Your task to perform on an android device: When is my next meeting? Image 0: 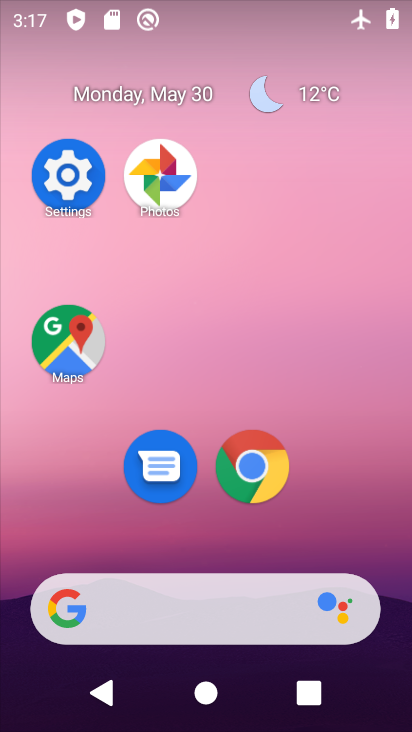
Step 0: drag from (339, 503) to (310, 65)
Your task to perform on an android device: When is my next meeting? Image 1: 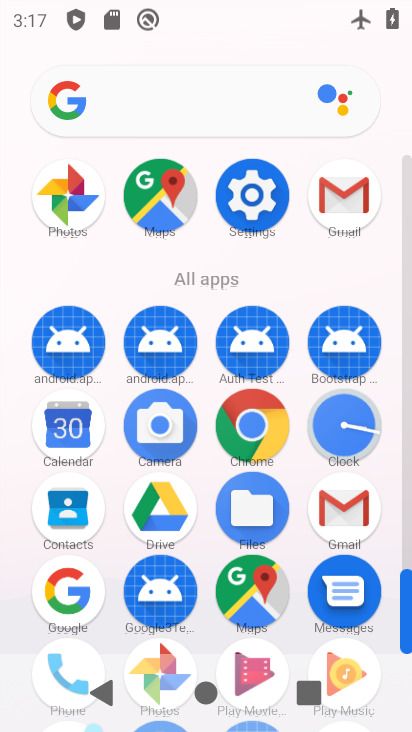
Step 1: click (71, 434)
Your task to perform on an android device: When is my next meeting? Image 2: 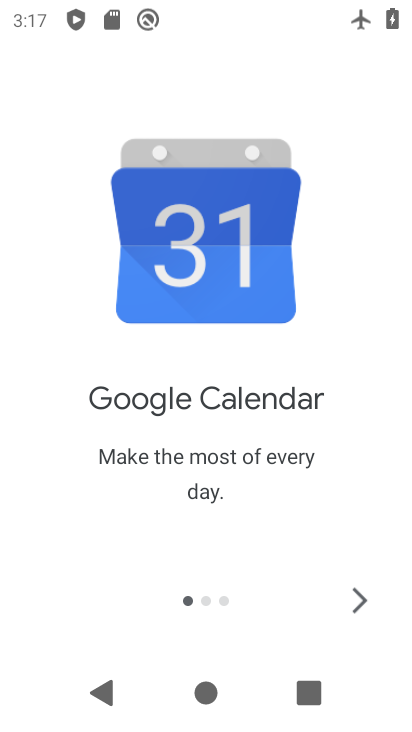
Step 2: click (351, 592)
Your task to perform on an android device: When is my next meeting? Image 3: 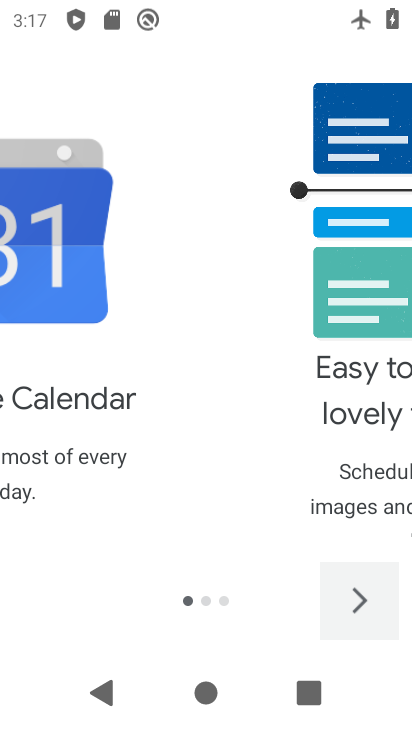
Step 3: click (351, 592)
Your task to perform on an android device: When is my next meeting? Image 4: 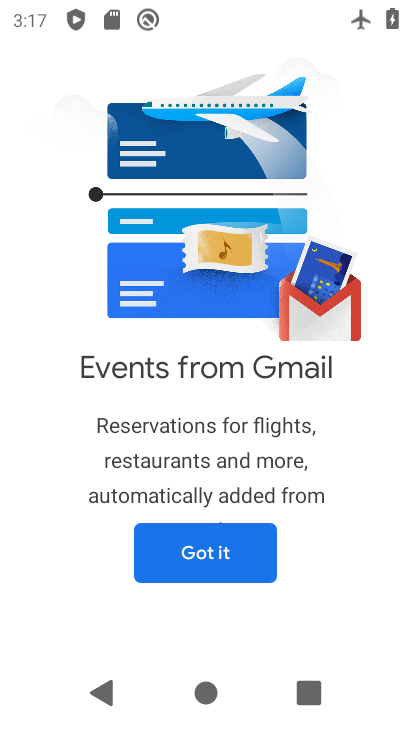
Step 4: click (230, 572)
Your task to perform on an android device: When is my next meeting? Image 5: 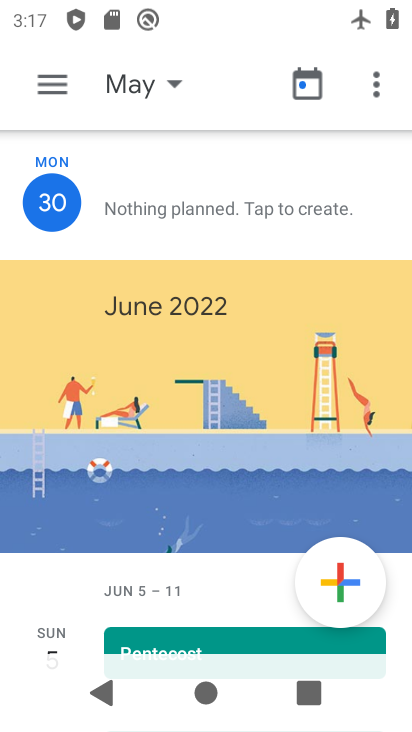
Step 5: click (43, 106)
Your task to perform on an android device: When is my next meeting? Image 6: 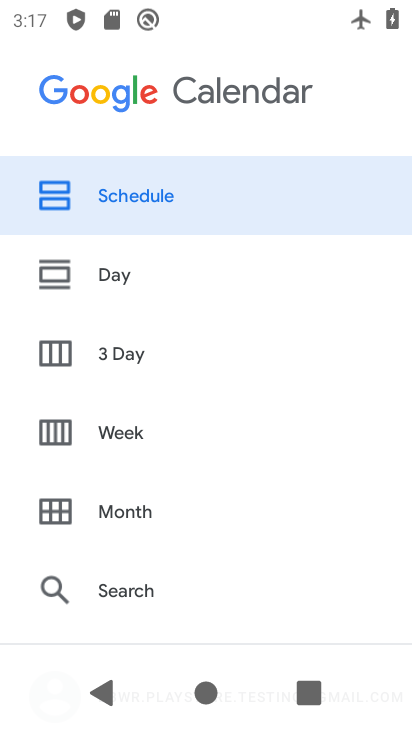
Step 6: click (131, 260)
Your task to perform on an android device: When is my next meeting? Image 7: 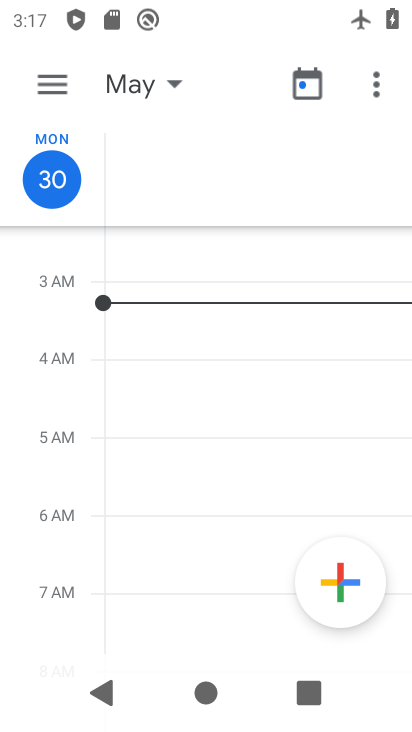
Step 7: task complete